Your task to perform on an android device: turn on wifi Image 0: 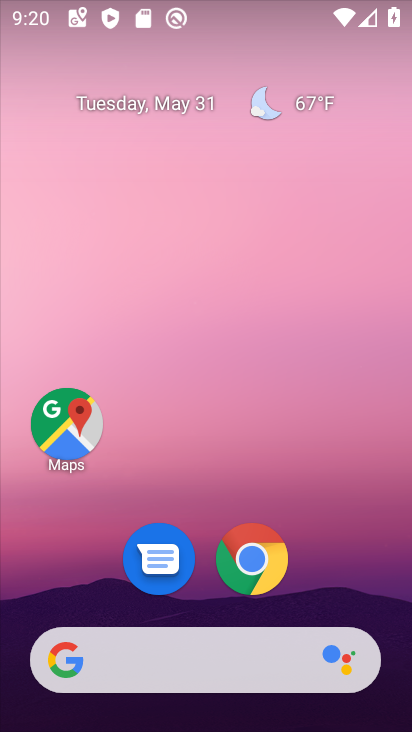
Step 0: drag from (330, 587) to (317, 28)
Your task to perform on an android device: turn on wifi Image 1: 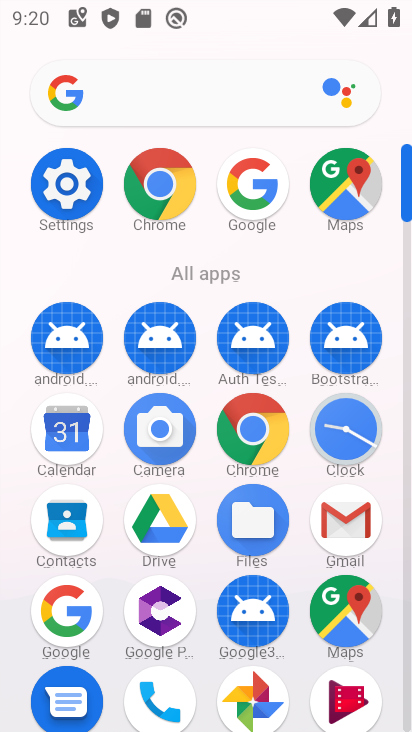
Step 1: click (68, 184)
Your task to perform on an android device: turn on wifi Image 2: 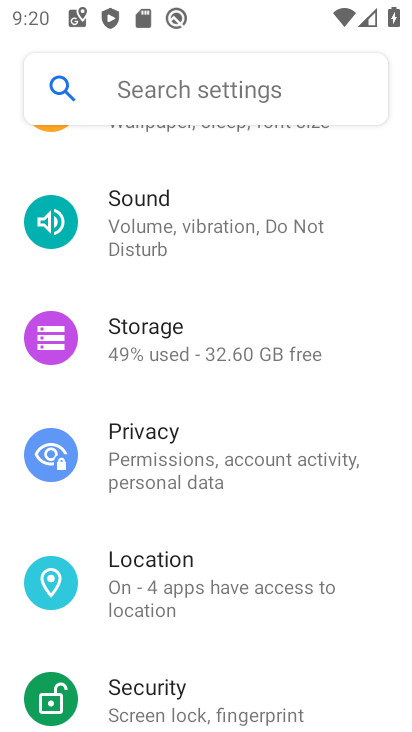
Step 2: drag from (196, 262) to (291, 583)
Your task to perform on an android device: turn on wifi Image 3: 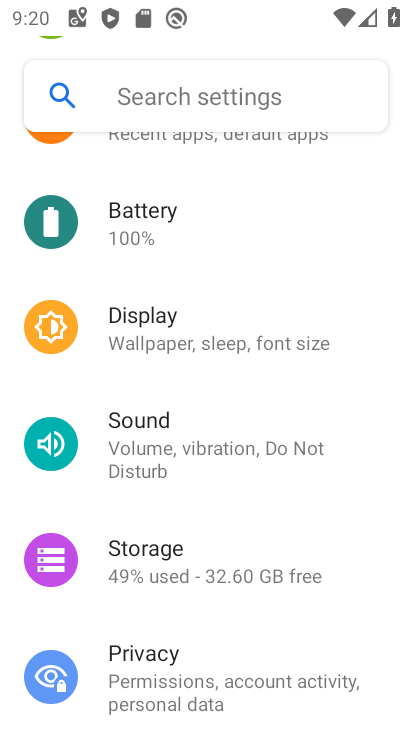
Step 3: drag from (184, 169) to (256, 533)
Your task to perform on an android device: turn on wifi Image 4: 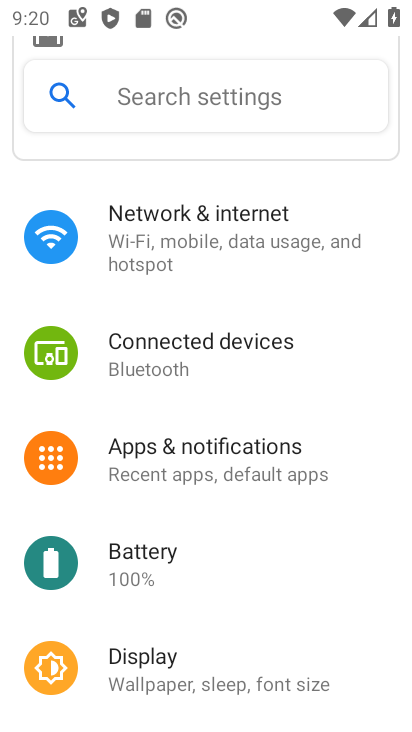
Step 4: click (193, 227)
Your task to perform on an android device: turn on wifi Image 5: 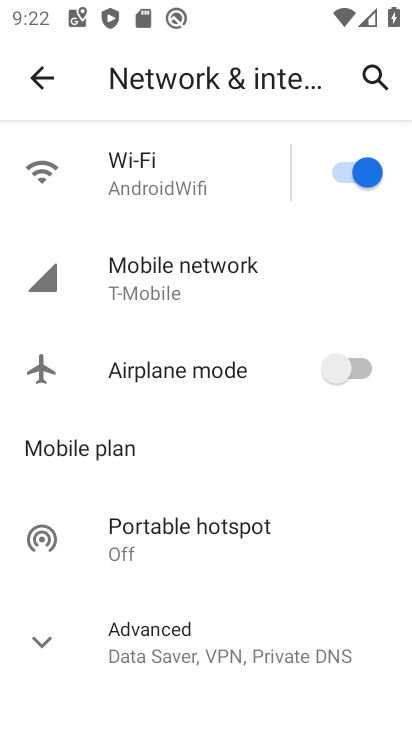
Step 5: task complete